Your task to perform on an android device: Open Chrome and go to the settings page Image 0: 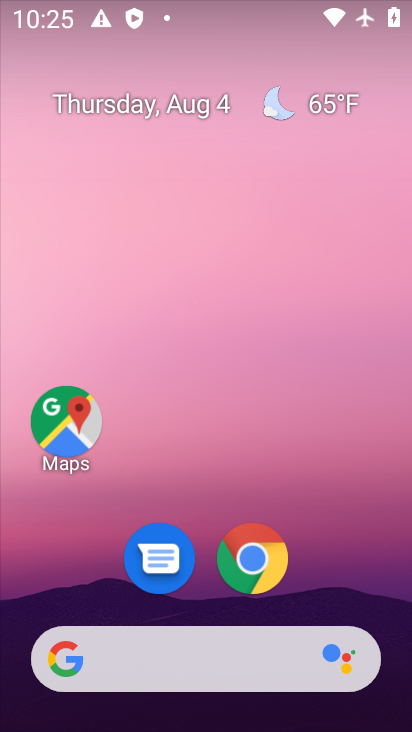
Step 0: drag from (340, 555) to (316, 107)
Your task to perform on an android device: Open Chrome and go to the settings page Image 1: 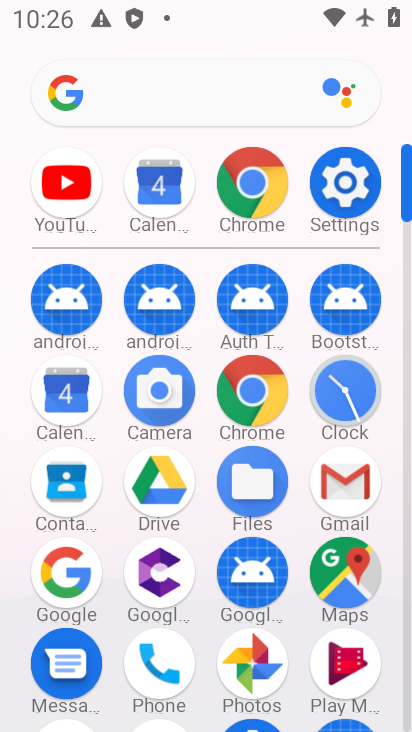
Step 1: click (259, 390)
Your task to perform on an android device: Open Chrome and go to the settings page Image 2: 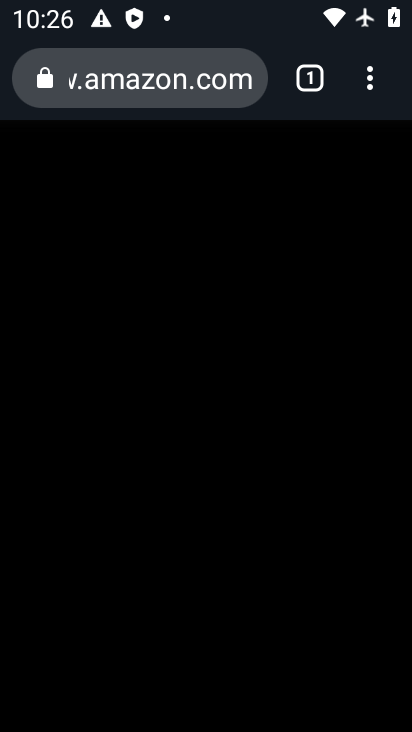
Step 2: task complete